Your task to perform on an android device: What is the news today? Image 0: 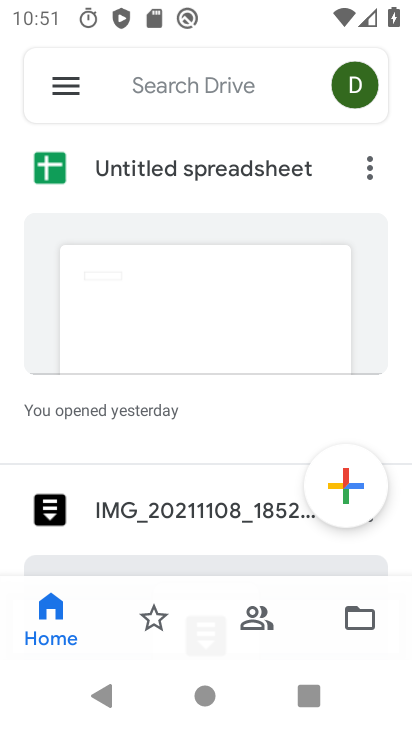
Step 0: press home button
Your task to perform on an android device: What is the news today? Image 1: 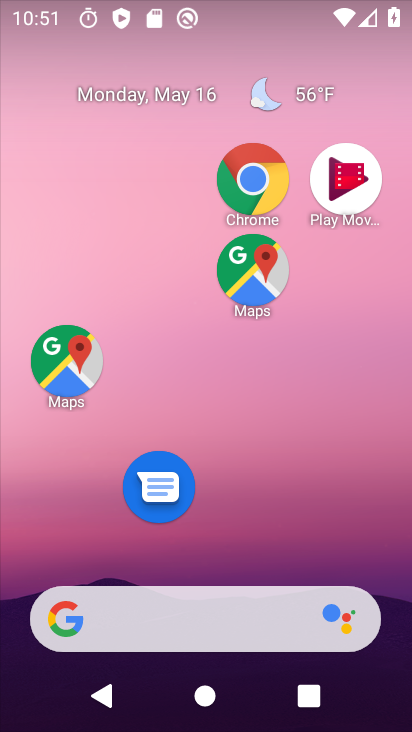
Step 1: click (69, 372)
Your task to perform on an android device: What is the news today? Image 2: 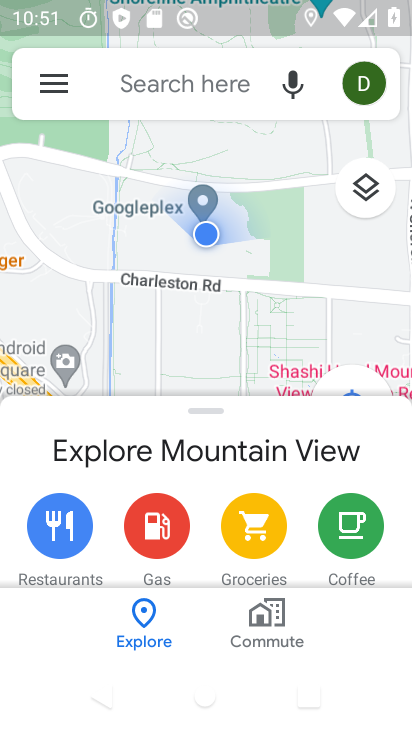
Step 2: click (180, 90)
Your task to perform on an android device: What is the news today? Image 3: 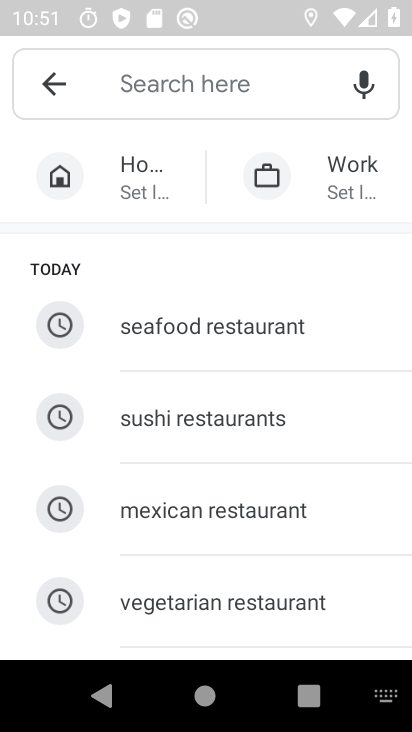
Step 3: press home button
Your task to perform on an android device: What is the news today? Image 4: 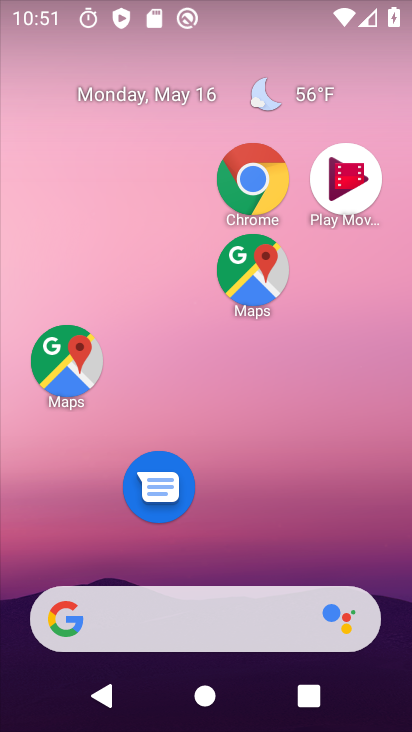
Step 4: click (177, 618)
Your task to perform on an android device: What is the news today? Image 5: 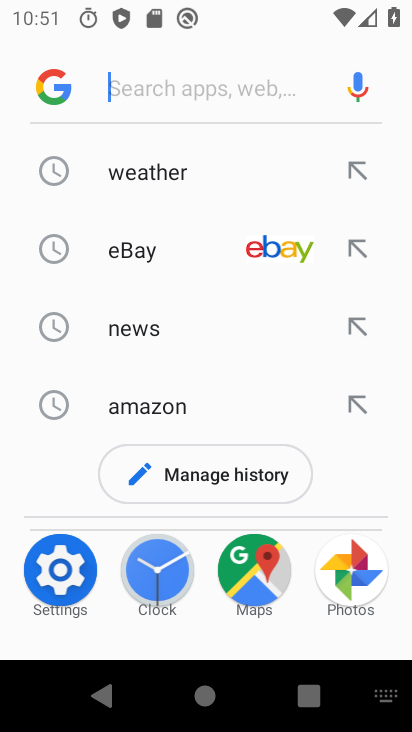
Step 5: click (141, 339)
Your task to perform on an android device: What is the news today? Image 6: 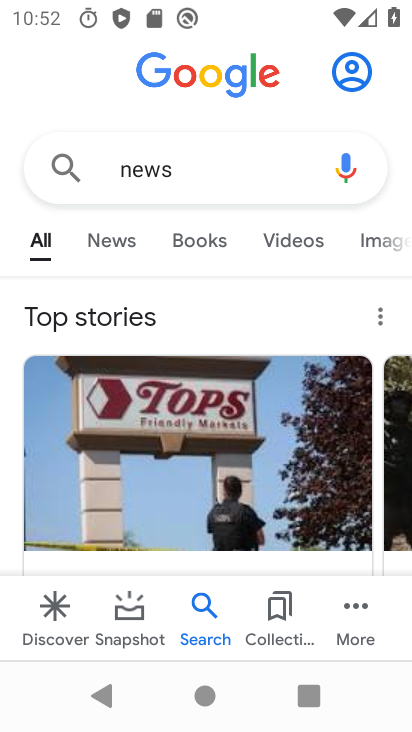
Step 6: click (234, 165)
Your task to perform on an android device: What is the news today? Image 7: 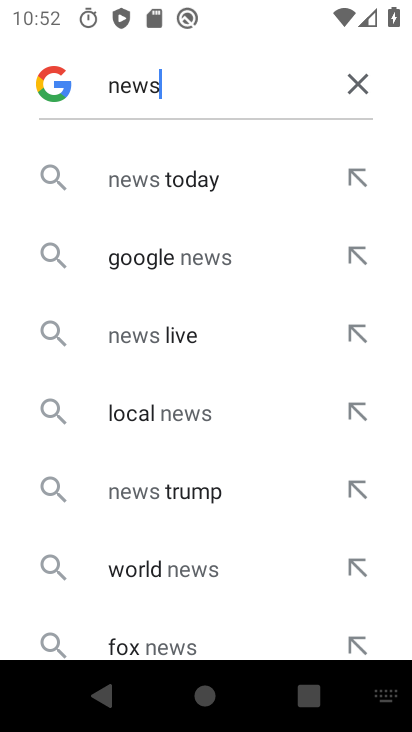
Step 7: type " today"
Your task to perform on an android device: What is the news today? Image 8: 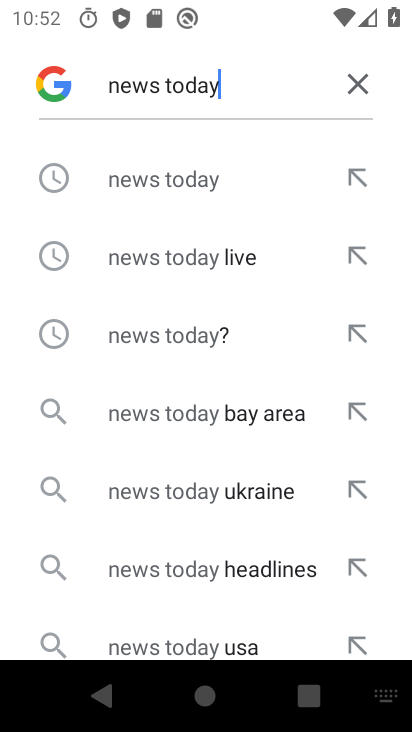
Step 8: click (180, 184)
Your task to perform on an android device: What is the news today? Image 9: 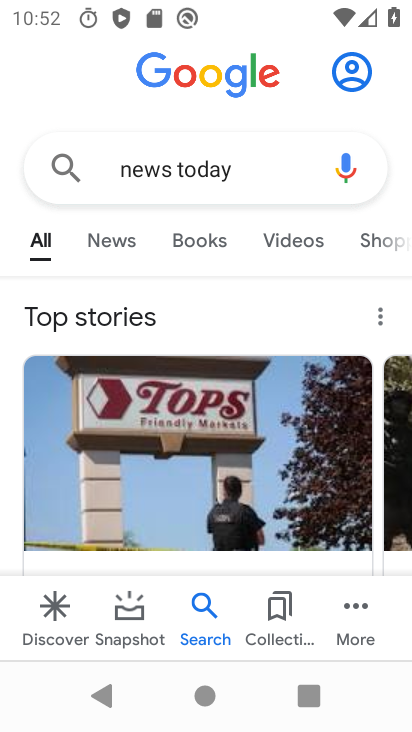
Step 9: task complete